Your task to perform on an android device: Open settings Image 0: 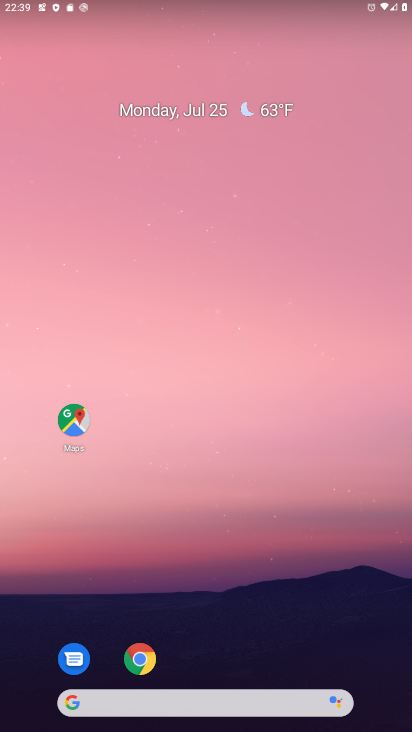
Step 0: drag from (177, 650) to (174, 103)
Your task to perform on an android device: Open settings Image 1: 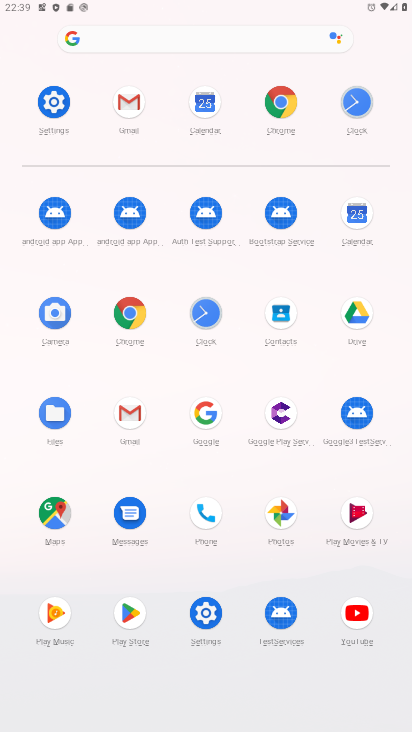
Step 1: click (54, 91)
Your task to perform on an android device: Open settings Image 2: 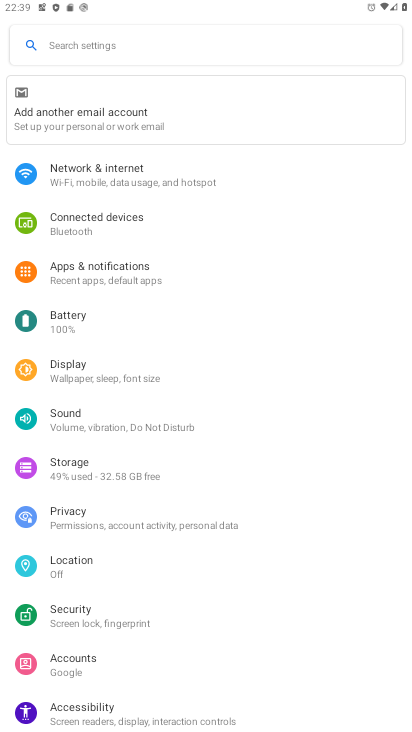
Step 2: task complete